Your task to perform on an android device: Do I have any events today? Image 0: 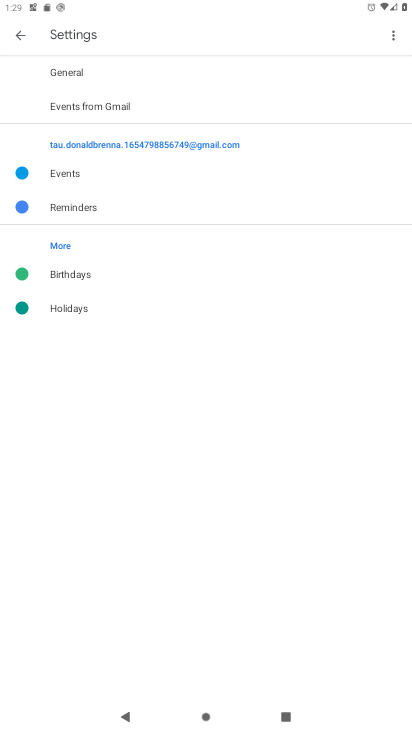
Step 0: press home button
Your task to perform on an android device: Do I have any events today? Image 1: 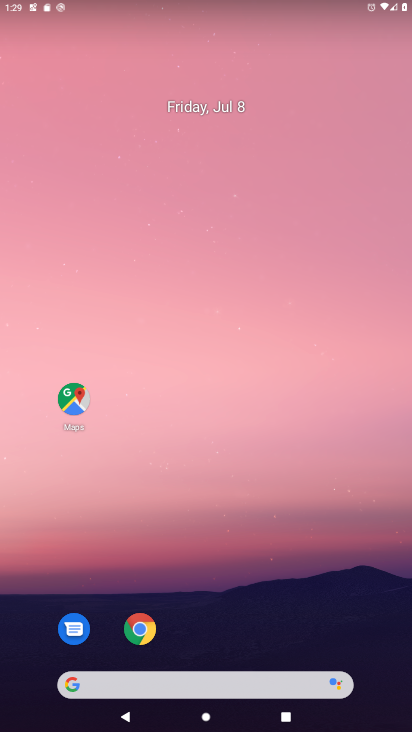
Step 1: drag from (303, 608) to (172, 39)
Your task to perform on an android device: Do I have any events today? Image 2: 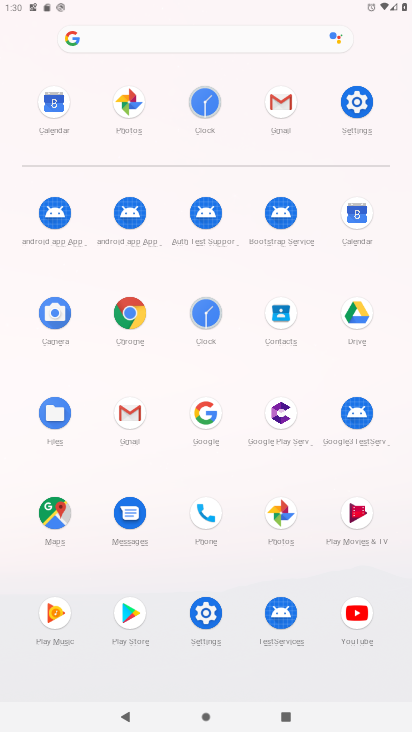
Step 2: click (350, 218)
Your task to perform on an android device: Do I have any events today? Image 3: 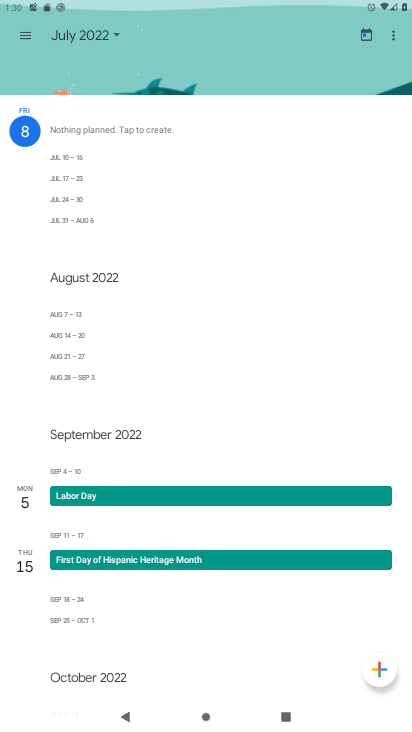
Step 3: click (102, 23)
Your task to perform on an android device: Do I have any events today? Image 4: 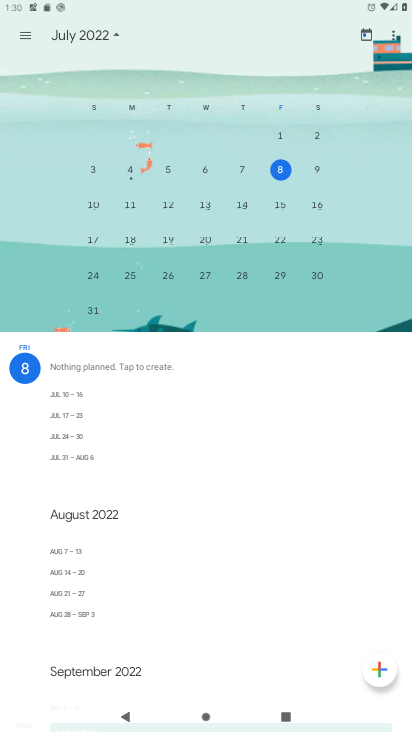
Step 4: click (275, 172)
Your task to perform on an android device: Do I have any events today? Image 5: 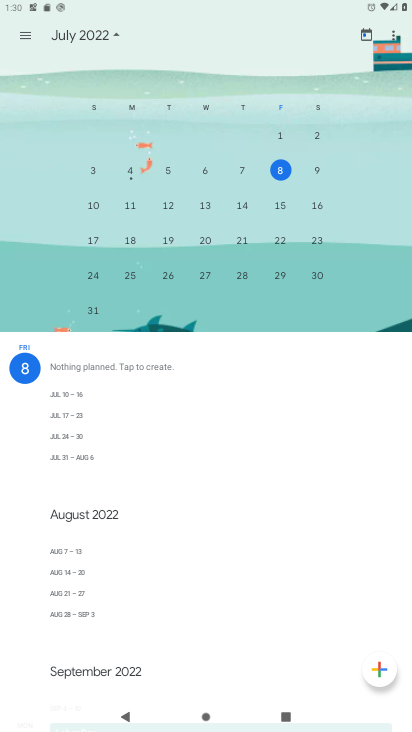
Step 5: click (275, 172)
Your task to perform on an android device: Do I have any events today? Image 6: 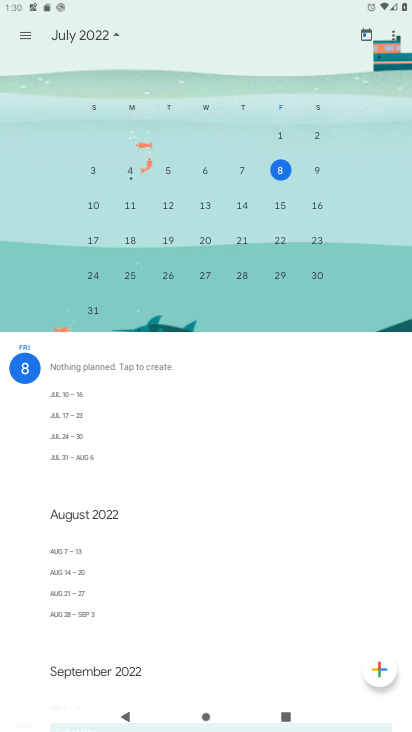
Step 6: task complete